Your task to perform on an android device: Open the map Image 0: 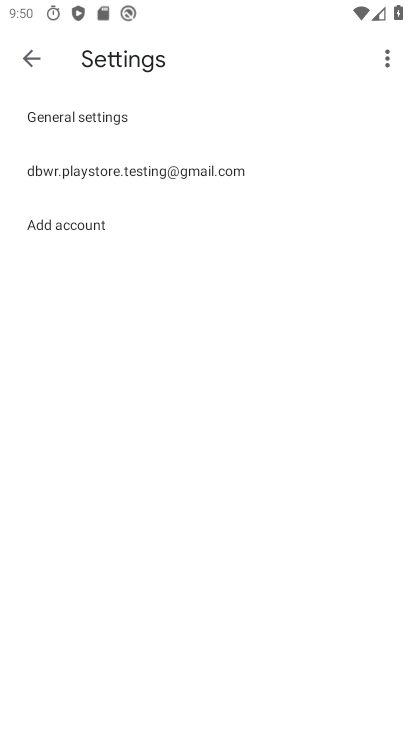
Step 0: press home button
Your task to perform on an android device: Open the map Image 1: 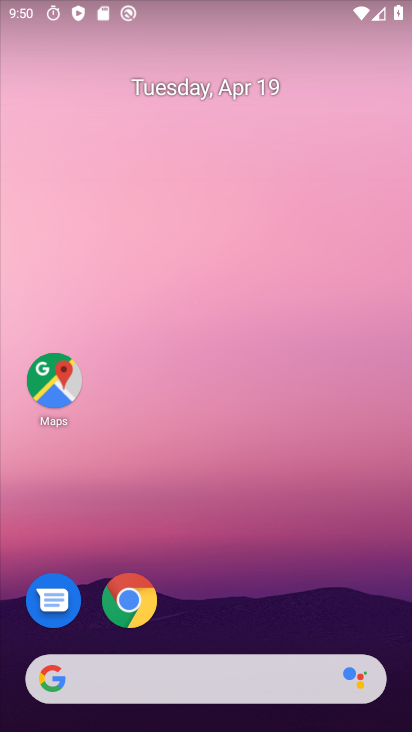
Step 1: click (64, 400)
Your task to perform on an android device: Open the map Image 2: 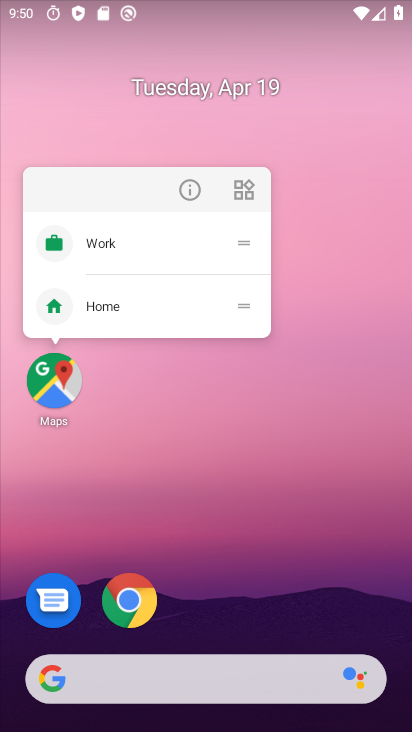
Step 2: click (57, 395)
Your task to perform on an android device: Open the map Image 3: 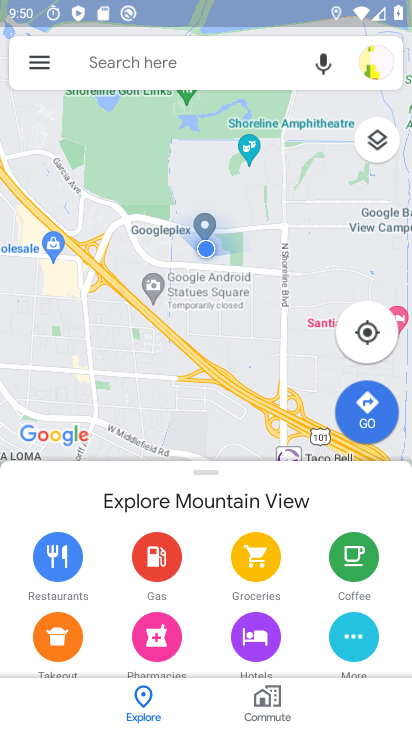
Step 3: task complete